Your task to perform on an android device: Open Wikipedia Image 0: 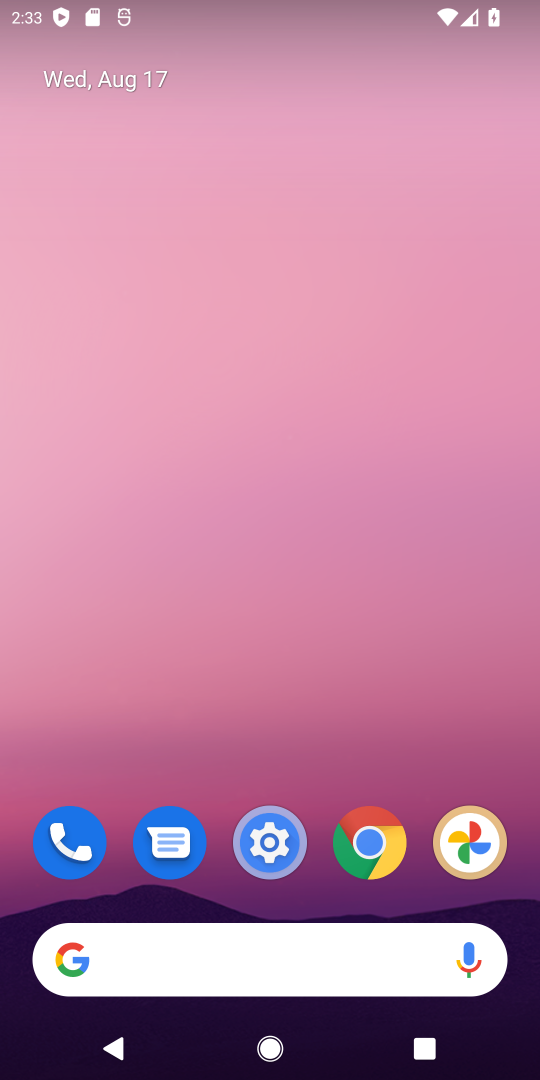
Step 0: drag from (503, 918) to (302, 72)
Your task to perform on an android device: Open Wikipedia Image 1: 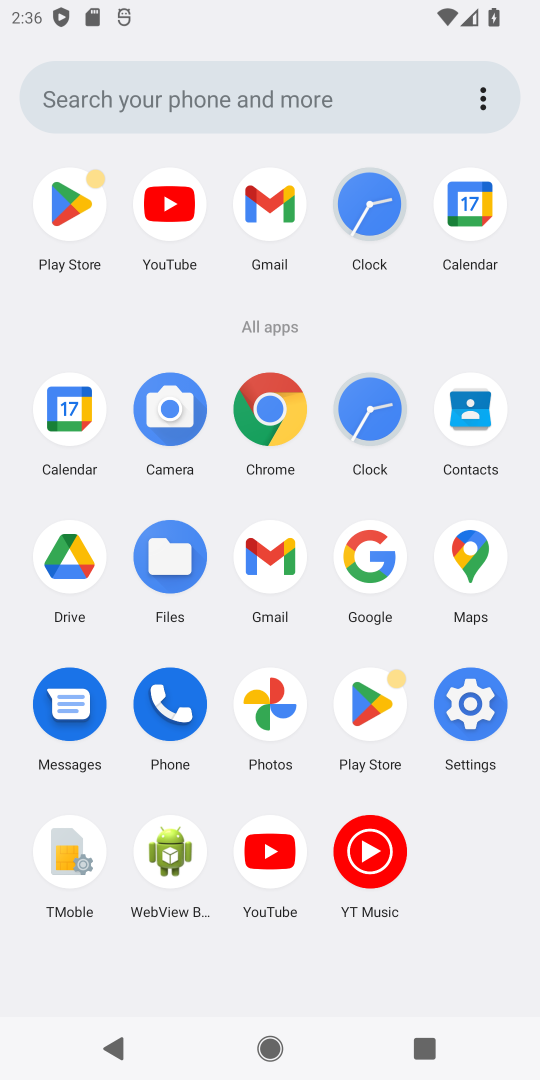
Step 1: click (358, 578)
Your task to perform on an android device: Open Wikipedia Image 2: 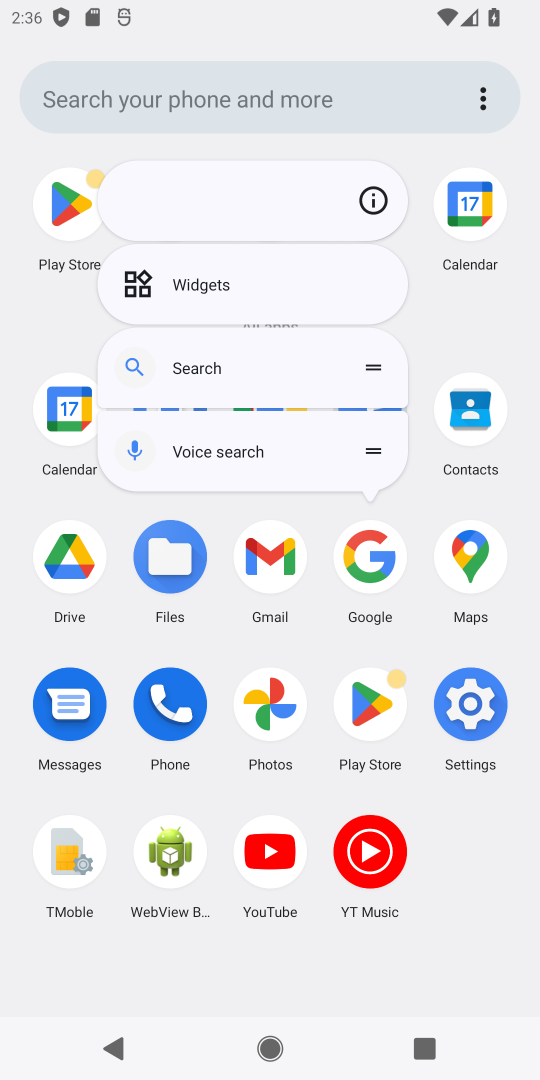
Step 2: click (358, 578)
Your task to perform on an android device: Open Wikipedia Image 3: 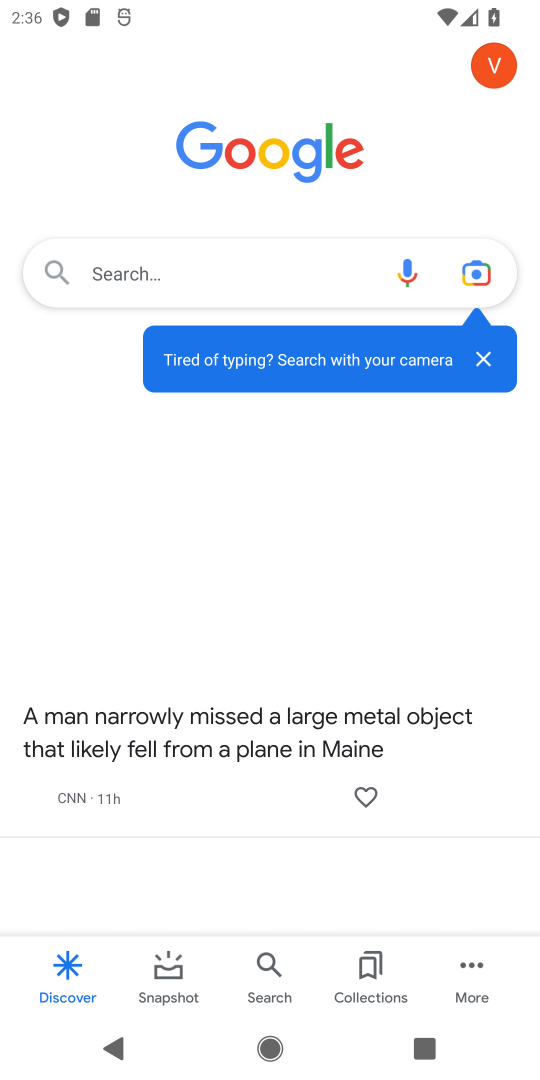
Step 3: click (255, 279)
Your task to perform on an android device: Open Wikipedia Image 4: 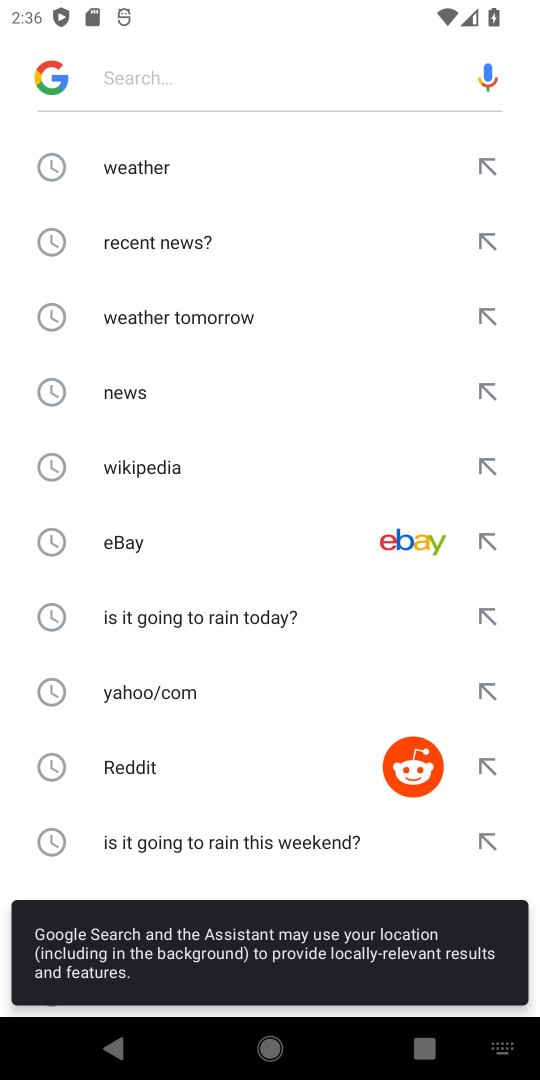
Step 4: click (154, 465)
Your task to perform on an android device: Open Wikipedia Image 5: 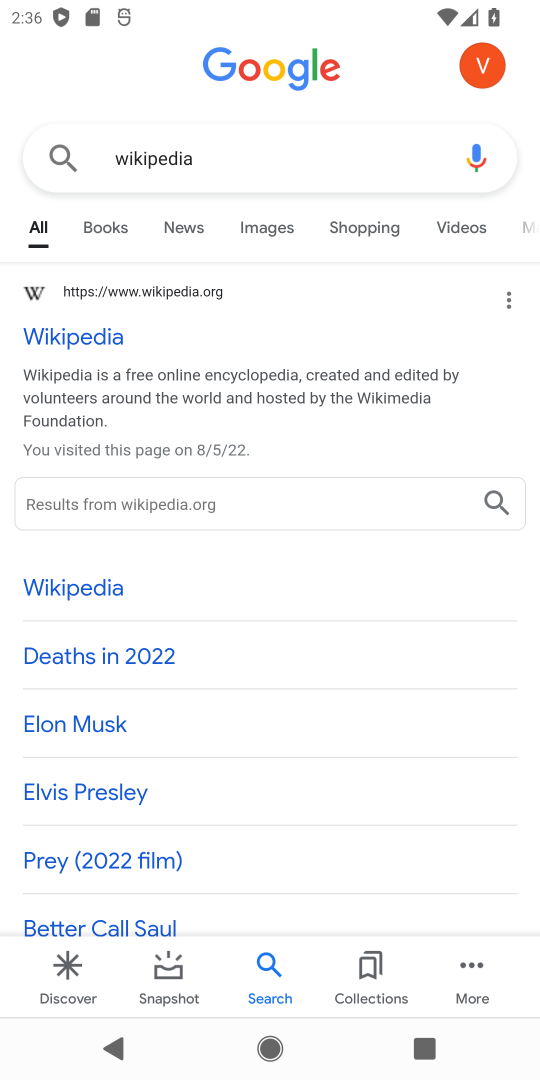
Step 5: task complete